Your task to perform on an android device: find which apps use the phone's location Image 0: 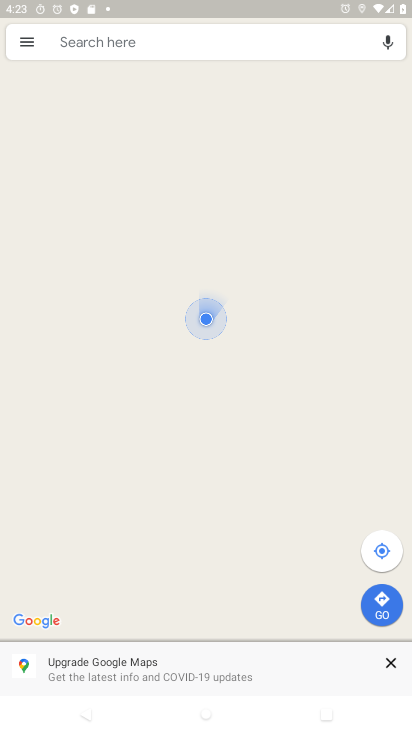
Step 0: press home button
Your task to perform on an android device: find which apps use the phone's location Image 1: 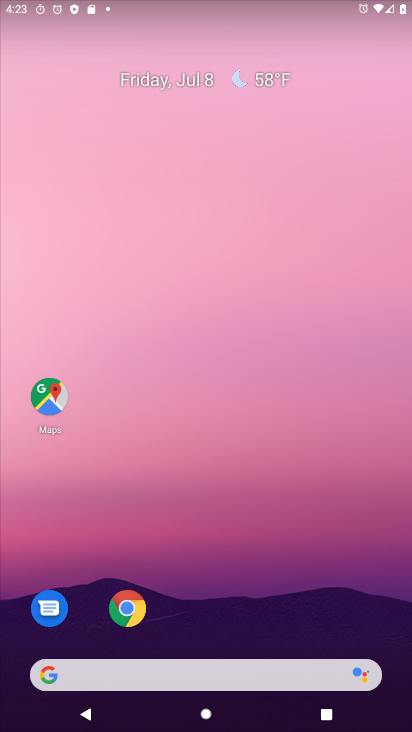
Step 1: drag from (283, 632) to (274, 1)
Your task to perform on an android device: find which apps use the phone's location Image 2: 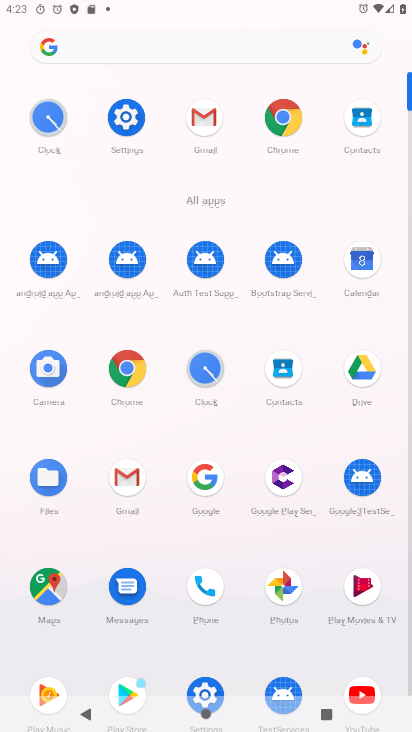
Step 2: click (126, 120)
Your task to perform on an android device: find which apps use the phone's location Image 3: 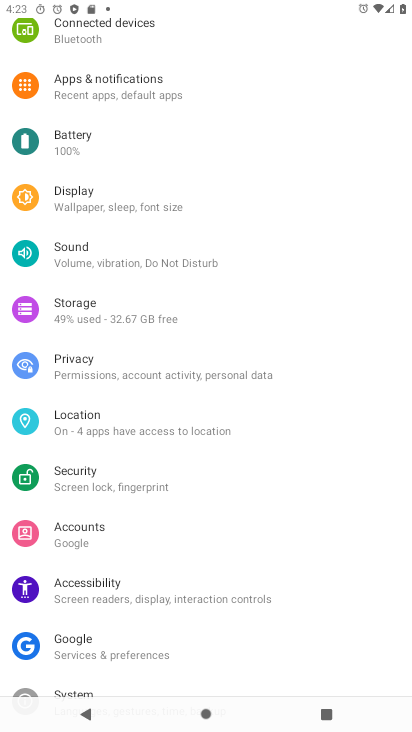
Step 3: click (71, 412)
Your task to perform on an android device: find which apps use the phone's location Image 4: 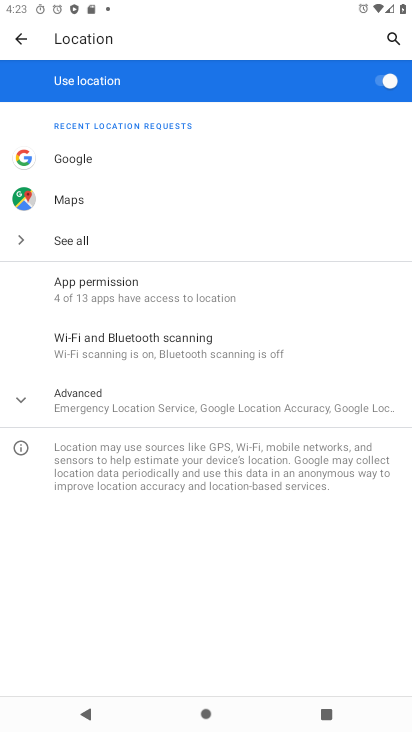
Step 4: click (241, 265)
Your task to perform on an android device: find which apps use the phone's location Image 5: 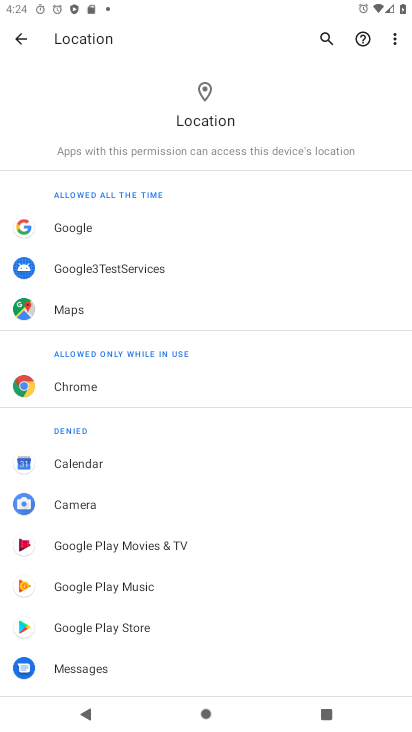
Step 5: task complete